Your task to perform on an android device: Open calendar and show me the fourth week of next month Image 0: 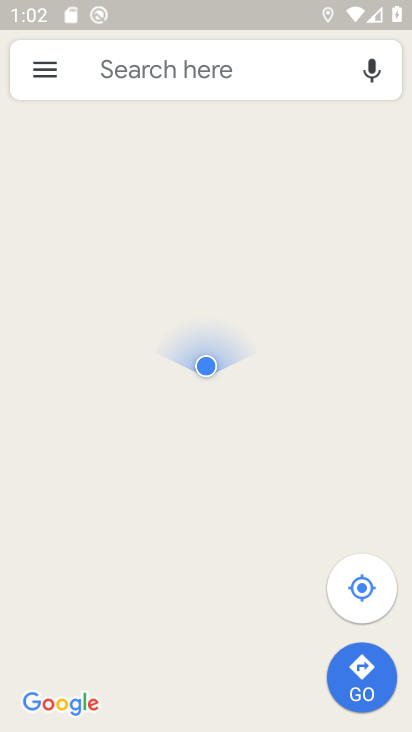
Step 0: press home button
Your task to perform on an android device: Open calendar and show me the fourth week of next month Image 1: 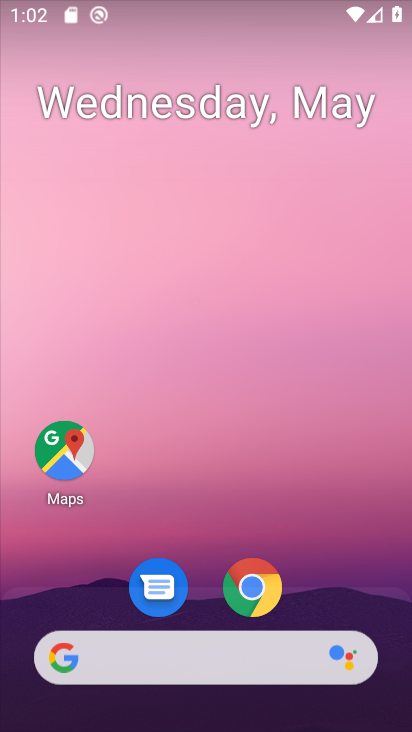
Step 1: drag from (336, 336) to (319, 92)
Your task to perform on an android device: Open calendar and show me the fourth week of next month Image 2: 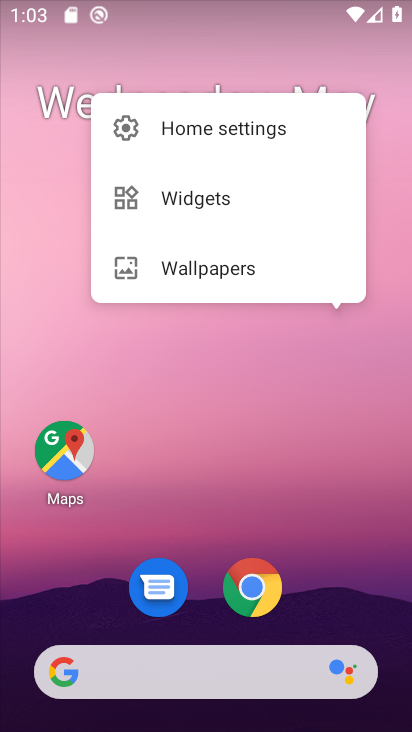
Step 2: drag from (282, 569) to (290, 138)
Your task to perform on an android device: Open calendar and show me the fourth week of next month Image 3: 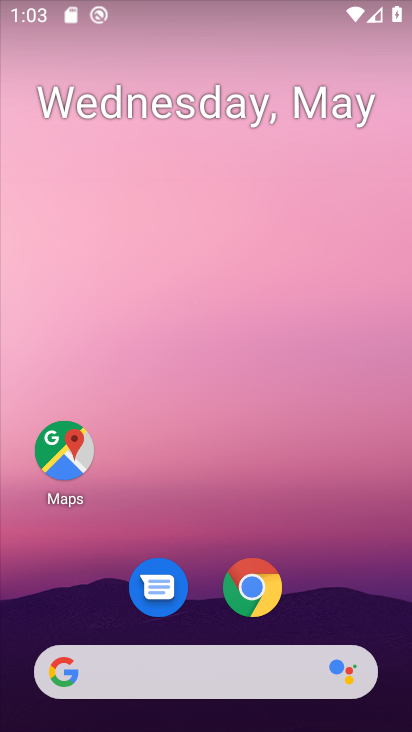
Step 3: click (340, 39)
Your task to perform on an android device: Open calendar and show me the fourth week of next month Image 4: 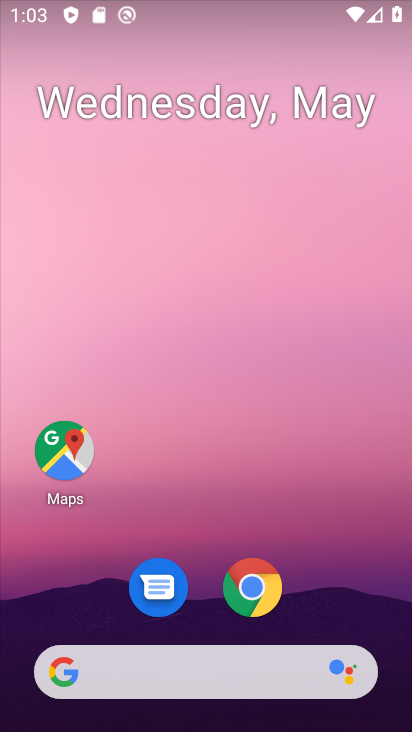
Step 4: drag from (330, 627) to (189, 103)
Your task to perform on an android device: Open calendar and show me the fourth week of next month Image 5: 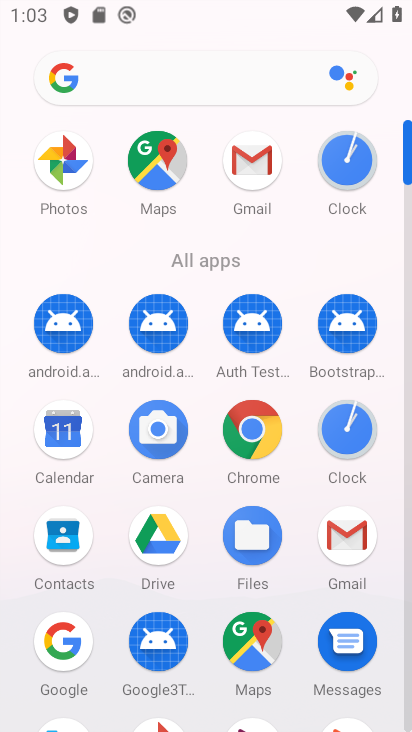
Step 5: click (76, 472)
Your task to perform on an android device: Open calendar and show me the fourth week of next month Image 6: 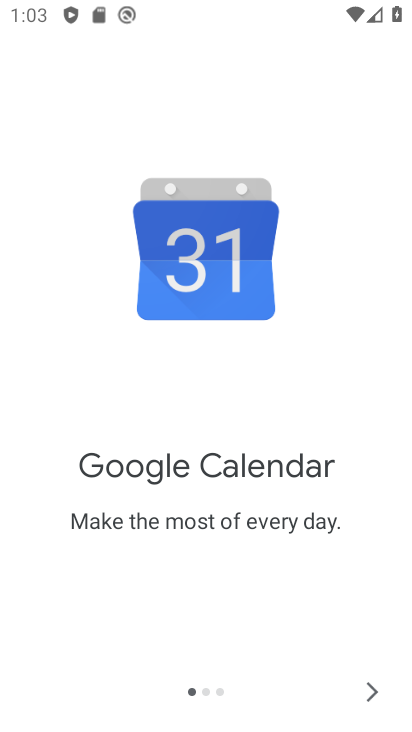
Step 6: click (378, 692)
Your task to perform on an android device: Open calendar and show me the fourth week of next month Image 7: 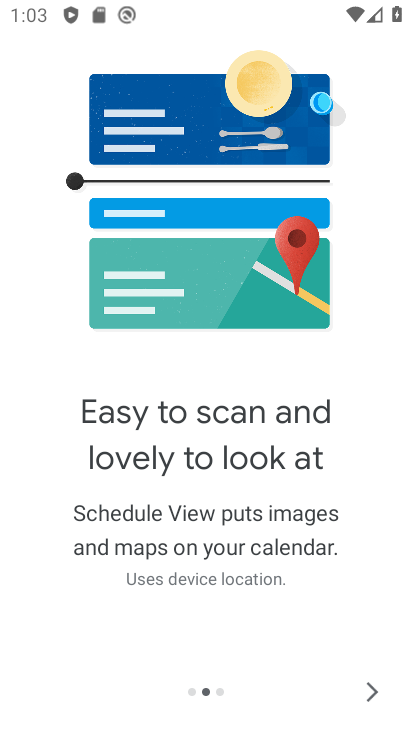
Step 7: click (378, 692)
Your task to perform on an android device: Open calendar and show me the fourth week of next month Image 8: 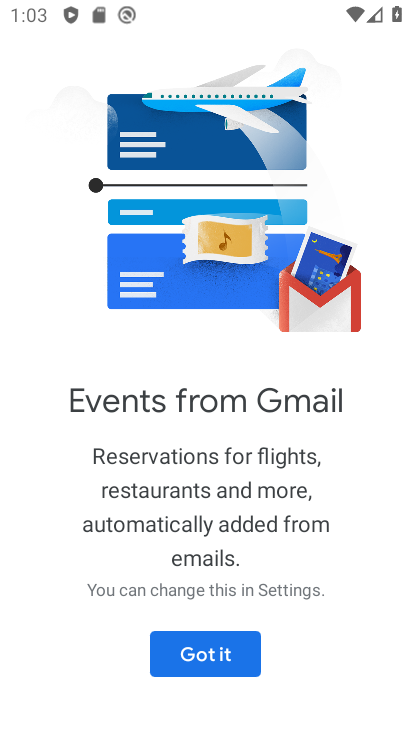
Step 8: click (178, 666)
Your task to perform on an android device: Open calendar and show me the fourth week of next month Image 9: 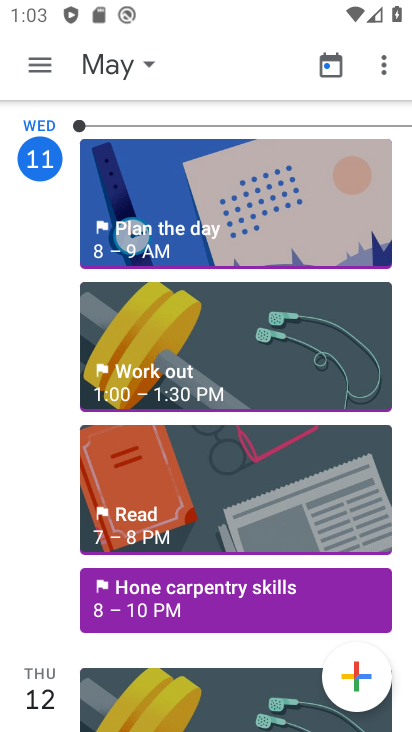
Step 9: click (35, 73)
Your task to perform on an android device: Open calendar and show me the fourth week of next month Image 10: 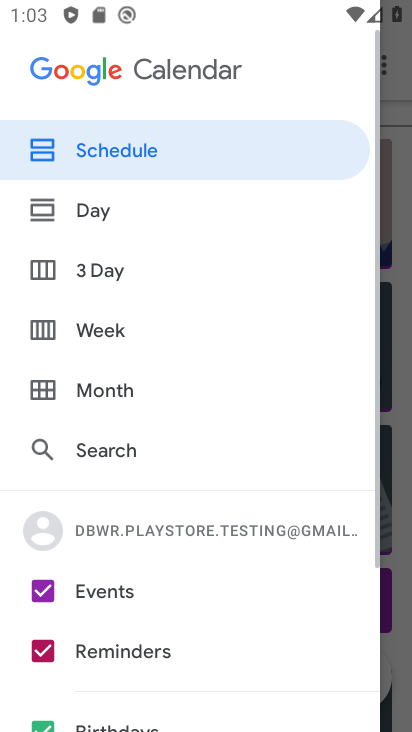
Step 10: click (119, 338)
Your task to perform on an android device: Open calendar and show me the fourth week of next month Image 11: 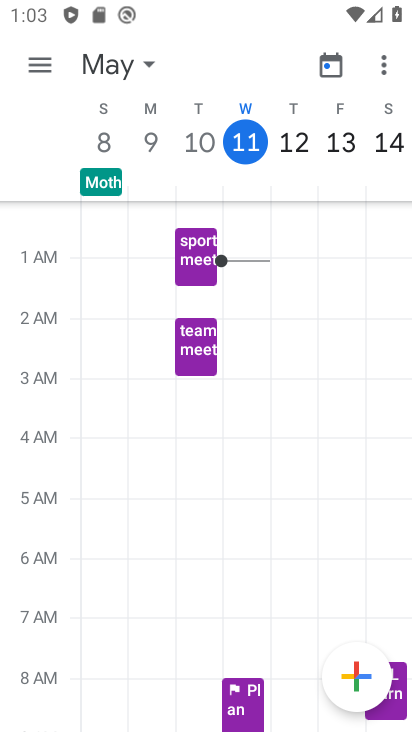
Step 11: click (99, 74)
Your task to perform on an android device: Open calendar and show me the fourth week of next month Image 12: 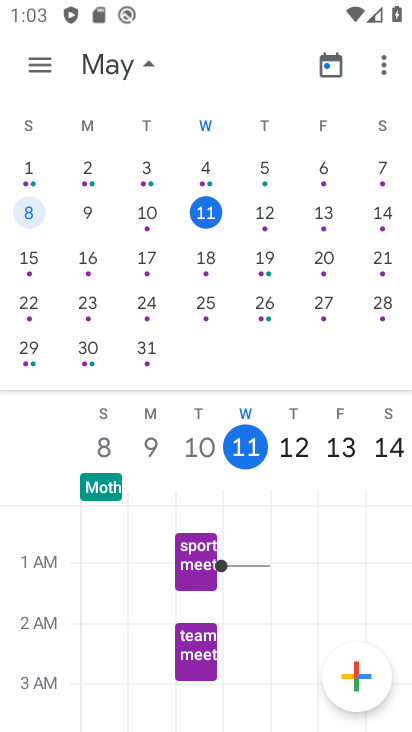
Step 12: drag from (332, 207) to (16, 241)
Your task to perform on an android device: Open calendar and show me the fourth week of next month Image 13: 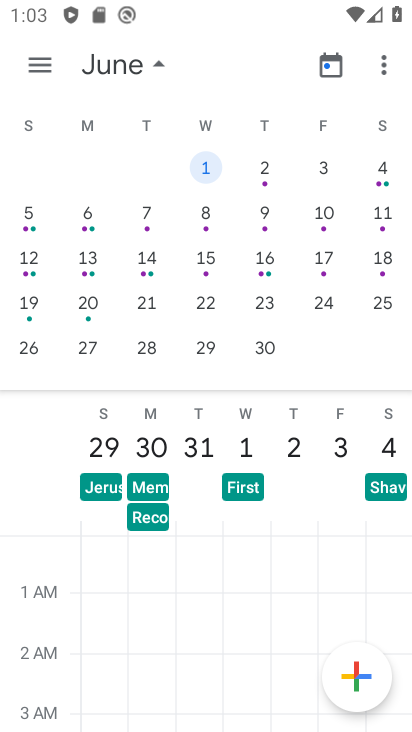
Step 13: click (31, 312)
Your task to perform on an android device: Open calendar and show me the fourth week of next month Image 14: 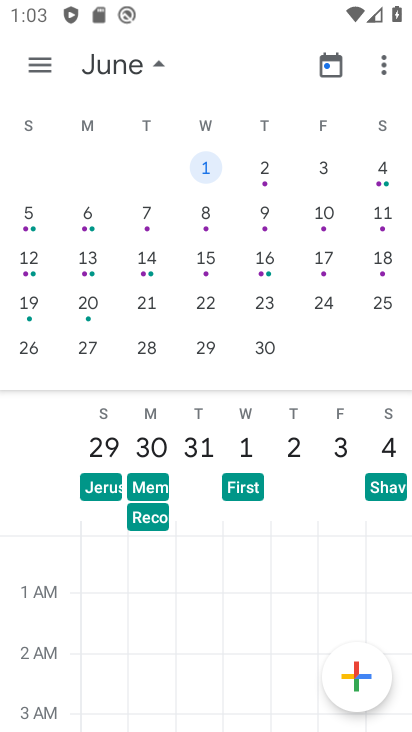
Step 14: click (31, 312)
Your task to perform on an android device: Open calendar and show me the fourth week of next month Image 15: 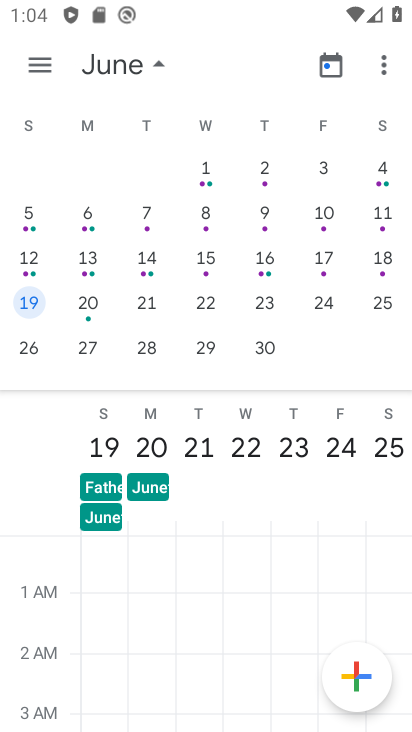
Step 15: task complete